Your task to perform on an android device: make emails show in primary in the gmail app Image 0: 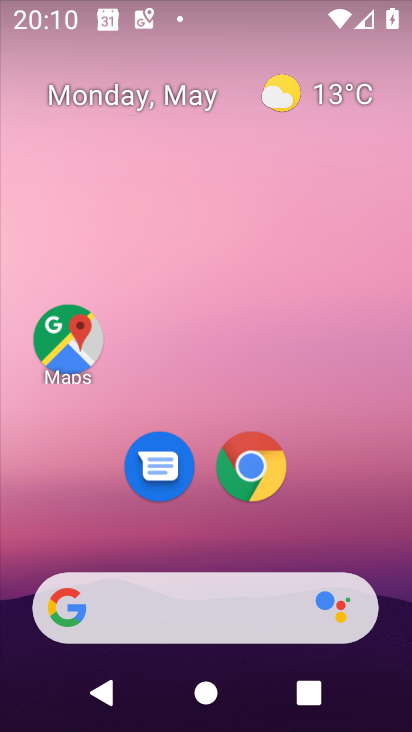
Step 0: drag from (334, 480) to (344, 223)
Your task to perform on an android device: make emails show in primary in the gmail app Image 1: 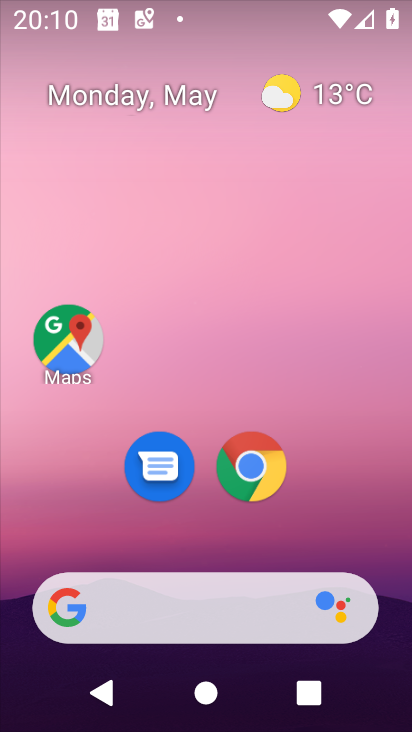
Step 1: drag from (318, 551) to (364, 271)
Your task to perform on an android device: make emails show in primary in the gmail app Image 2: 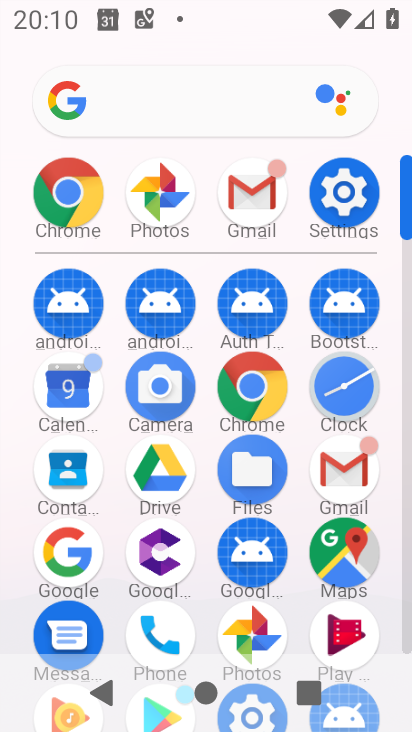
Step 2: click (340, 466)
Your task to perform on an android device: make emails show in primary in the gmail app Image 3: 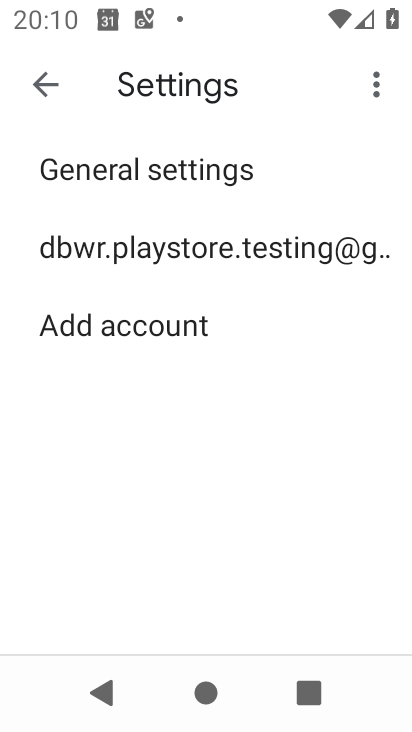
Step 3: click (137, 245)
Your task to perform on an android device: make emails show in primary in the gmail app Image 4: 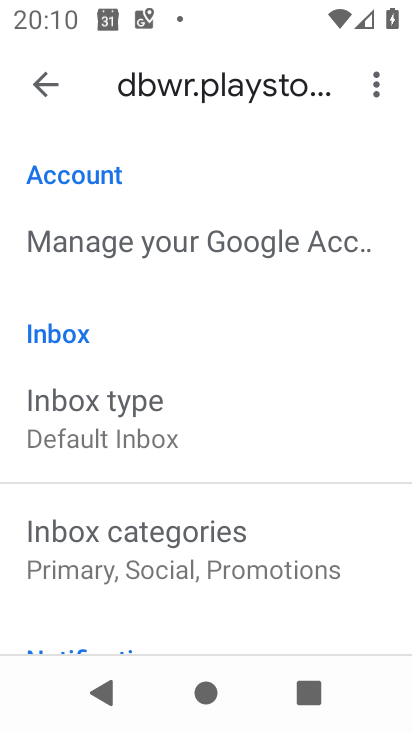
Step 4: drag from (268, 601) to (293, 341)
Your task to perform on an android device: make emails show in primary in the gmail app Image 5: 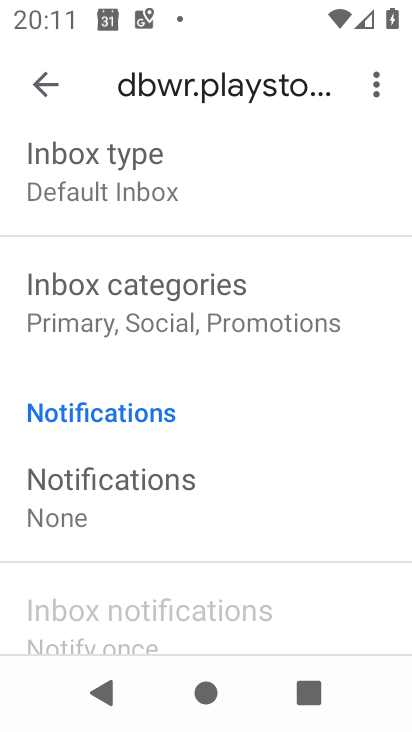
Step 5: drag from (213, 580) to (275, 162)
Your task to perform on an android device: make emails show in primary in the gmail app Image 6: 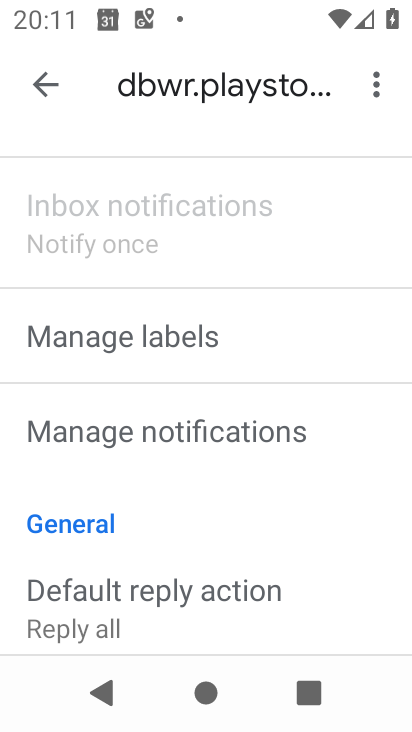
Step 6: drag from (188, 577) to (286, 151)
Your task to perform on an android device: make emails show in primary in the gmail app Image 7: 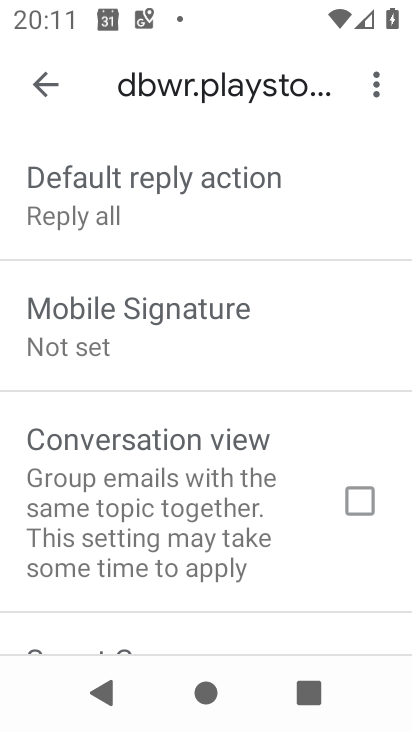
Step 7: click (32, 90)
Your task to perform on an android device: make emails show in primary in the gmail app Image 8: 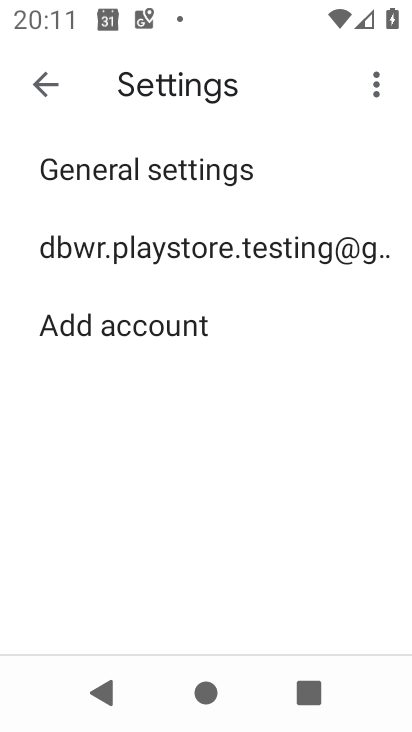
Step 8: click (33, 89)
Your task to perform on an android device: make emails show in primary in the gmail app Image 9: 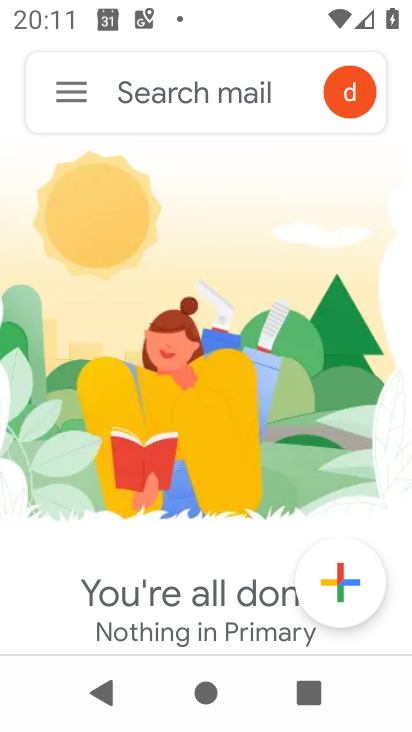
Step 9: click (61, 94)
Your task to perform on an android device: make emails show in primary in the gmail app Image 10: 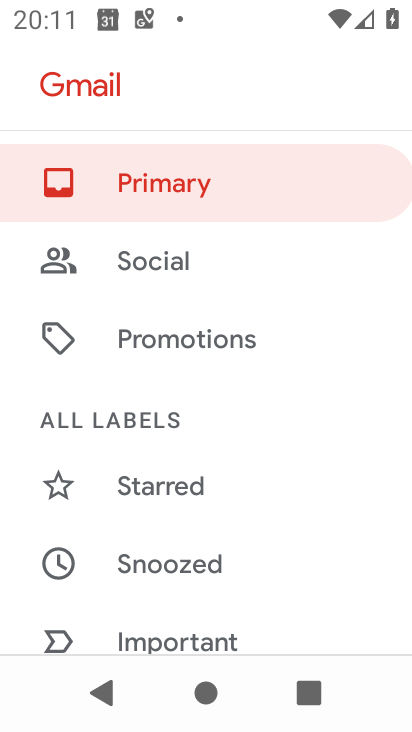
Step 10: click (215, 191)
Your task to perform on an android device: make emails show in primary in the gmail app Image 11: 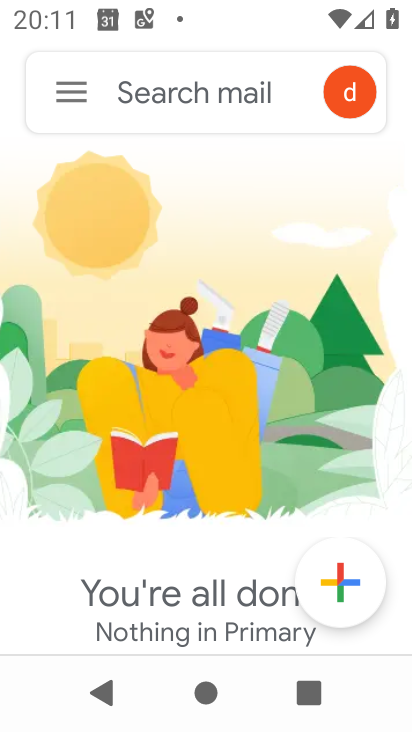
Step 11: task complete